Your task to perform on an android device: check android version Image 0: 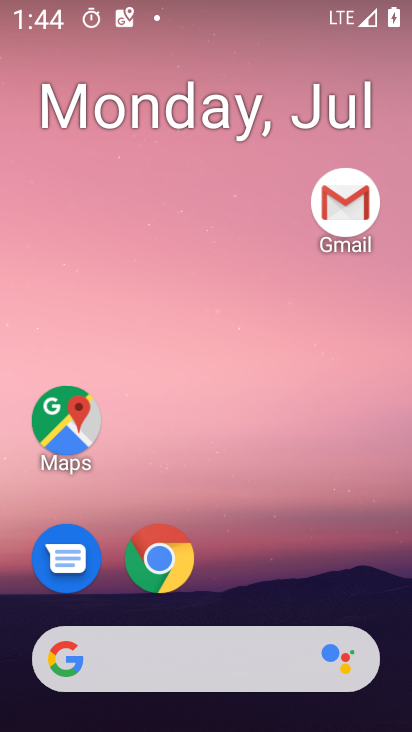
Step 0: drag from (330, 548) to (352, 95)
Your task to perform on an android device: check android version Image 1: 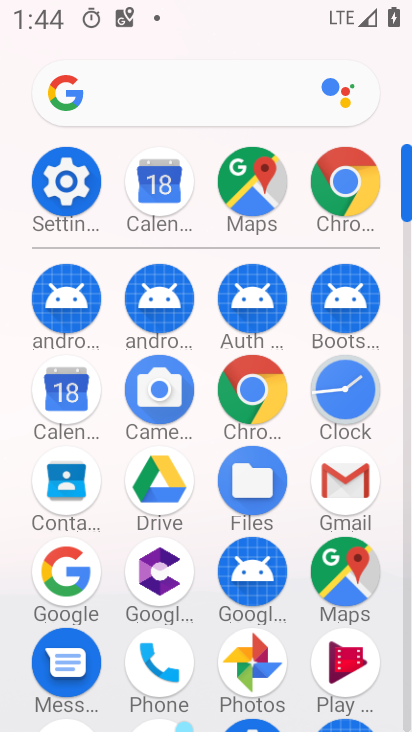
Step 1: click (75, 186)
Your task to perform on an android device: check android version Image 2: 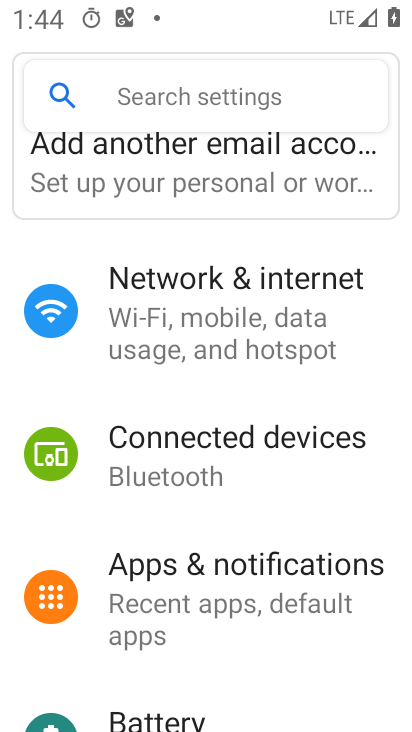
Step 2: drag from (367, 502) to (371, 426)
Your task to perform on an android device: check android version Image 3: 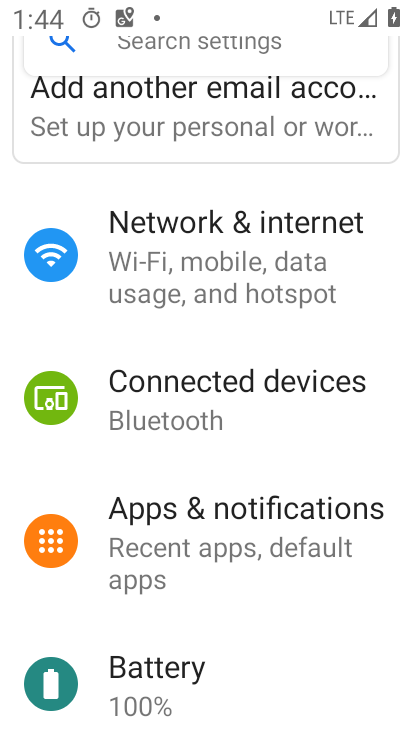
Step 3: drag from (367, 542) to (367, 455)
Your task to perform on an android device: check android version Image 4: 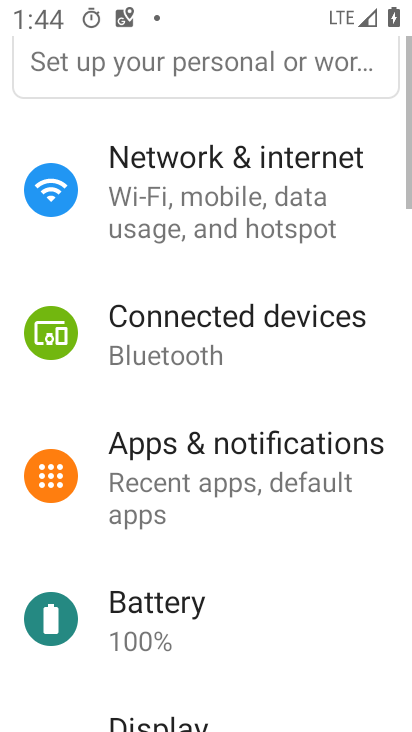
Step 4: drag from (358, 547) to (359, 453)
Your task to perform on an android device: check android version Image 5: 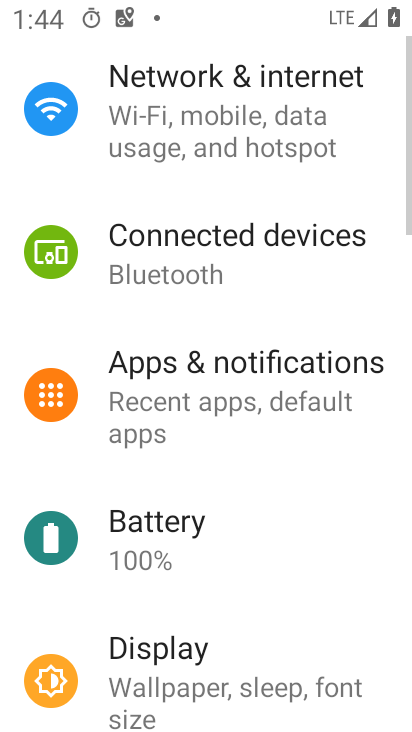
Step 5: drag from (338, 537) to (341, 447)
Your task to perform on an android device: check android version Image 6: 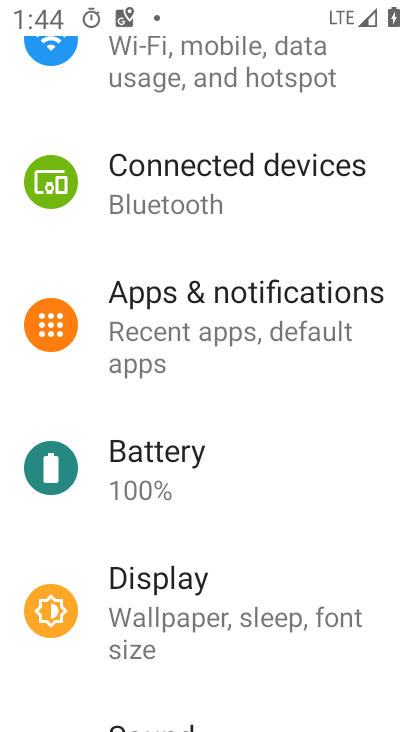
Step 6: drag from (328, 522) to (328, 426)
Your task to perform on an android device: check android version Image 7: 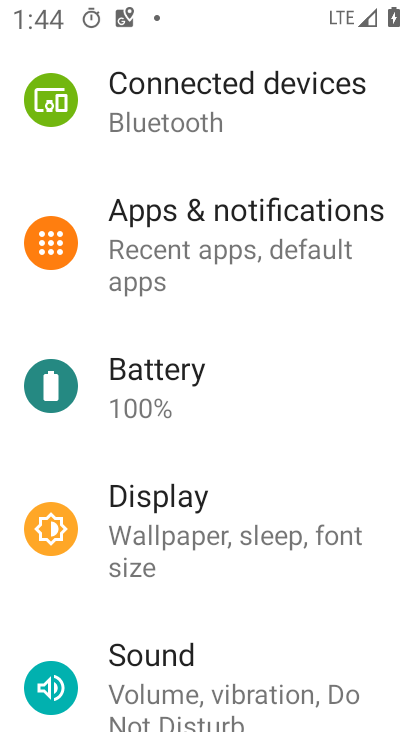
Step 7: drag from (325, 571) to (325, 492)
Your task to perform on an android device: check android version Image 8: 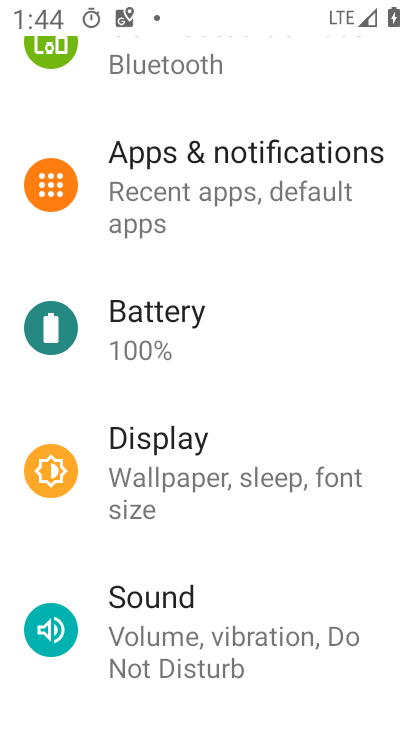
Step 8: drag from (323, 588) to (327, 488)
Your task to perform on an android device: check android version Image 9: 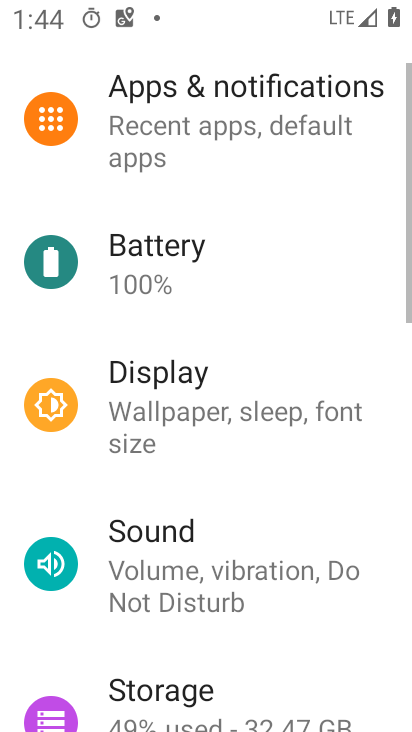
Step 9: drag from (328, 616) to (327, 439)
Your task to perform on an android device: check android version Image 10: 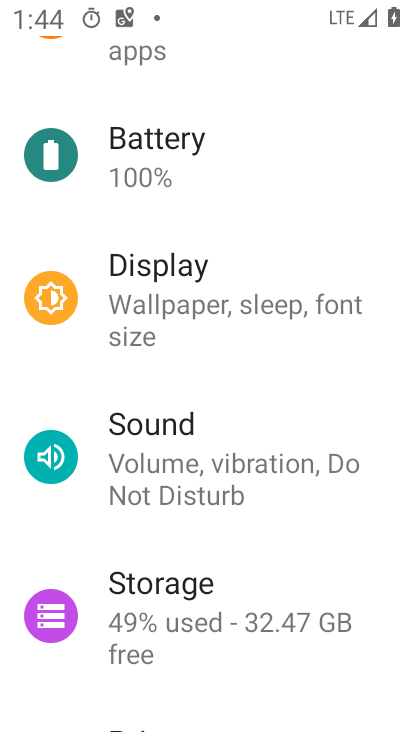
Step 10: drag from (340, 553) to (349, 454)
Your task to perform on an android device: check android version Image 11: 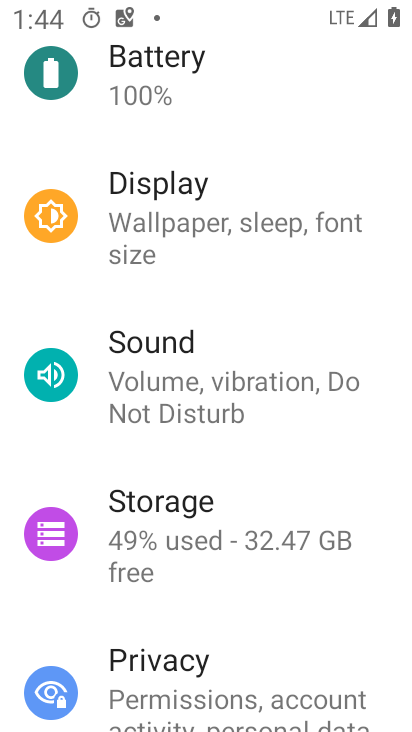
Step 11: drag from (345, 534) to (346, 491)
Your task to perform on an android device: check android version Image 12: 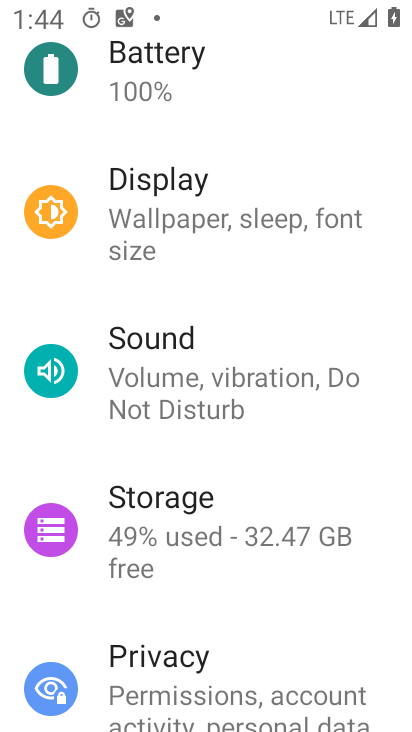
Step 12: drag from (334, 591) to (339, 449)
Your task to perform on an android device: check android version Image 13: 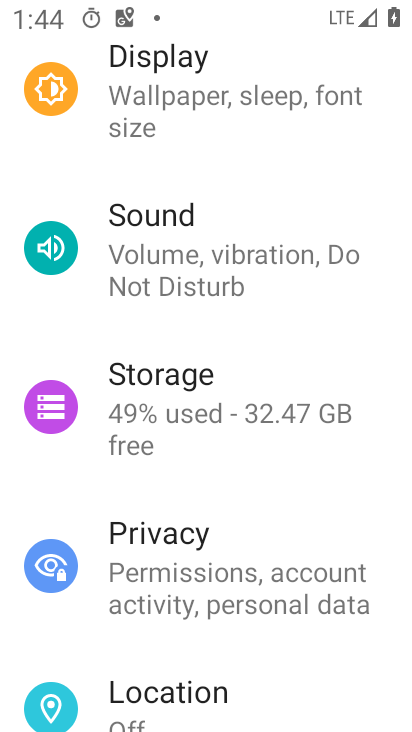
Step 13: drag from (354, 652) to (362, 478)
Your task to perform on an android device: check android version Image 14: 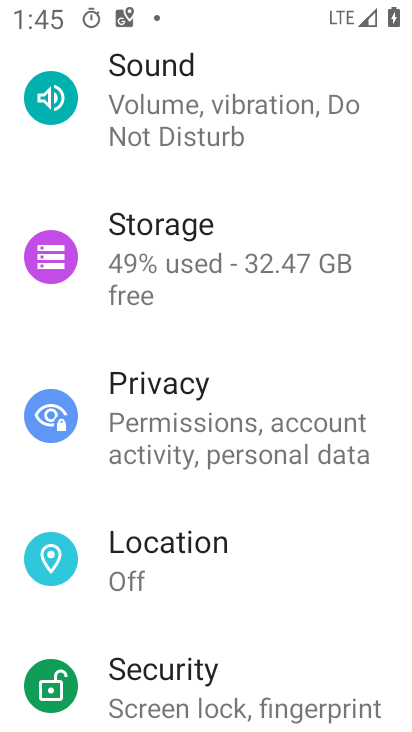
Step 14: drag from (351, 615) to (349, 424)
Your task to perform on an android device: check android version Image 15: 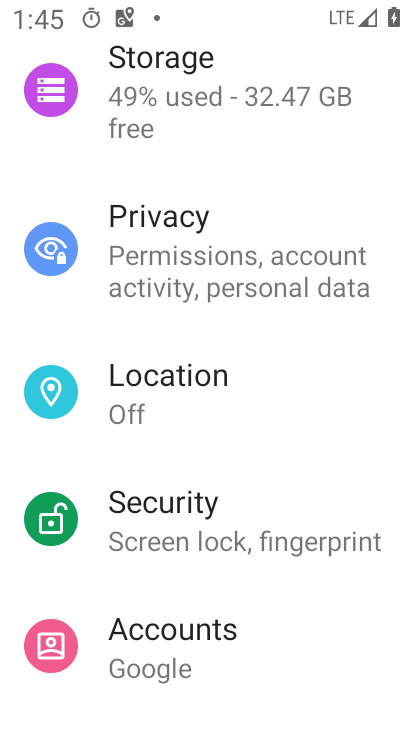
Step 15: drag from (327, 606) to (319, 486)
Your task to perform on an android device: check android version Image 16: 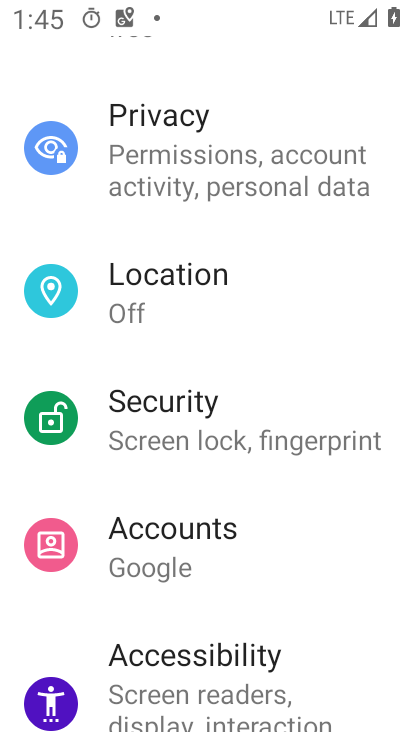
Step 16: drag from (319, 615) to (318, 465)
Your task to perform on an android device: check android version Image 17: 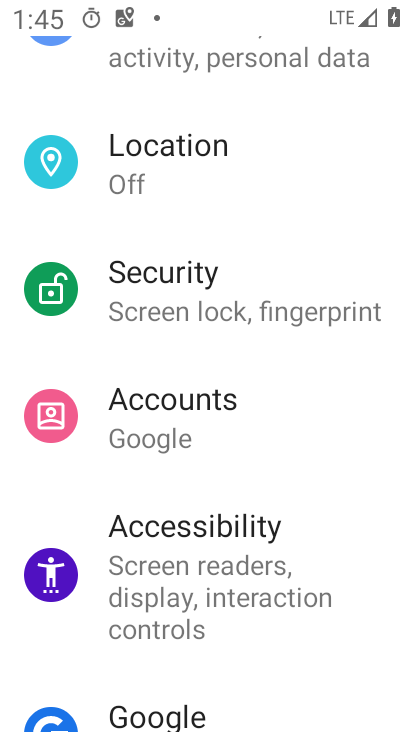
Step 17: drag from (318, 643) to (321, 508)
Your task to perform on an android device: check android version Image 18: 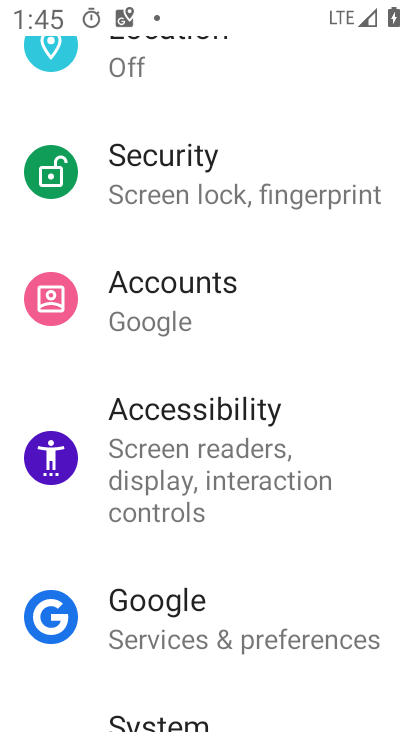
Step 18: drag from (314, 653) to (325, 508)
Your task to perform on an android device: check android version Image 19: 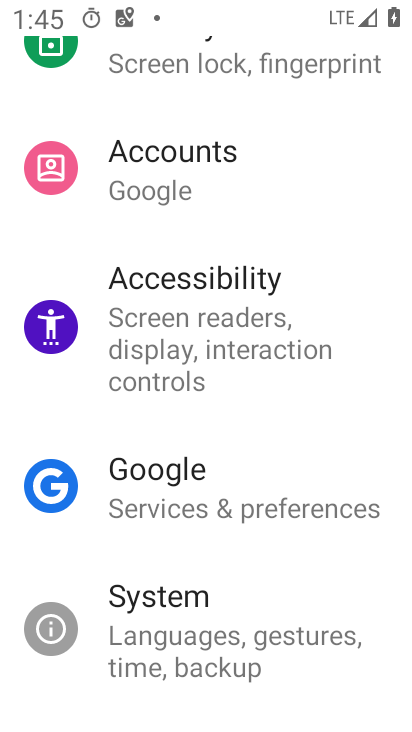
Step 19: click (296, 637)
Your task to perform on an android device: check android version Image 20: 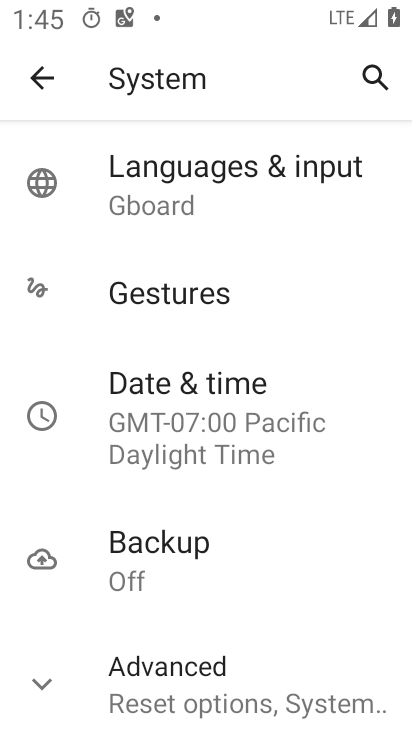
Step 20: click (302, 719)
Your task to perform on an android device: check android version Image 21: 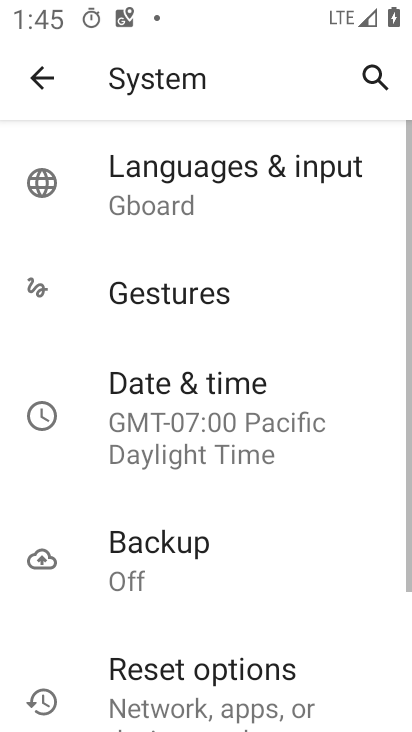
Step 21: drag from (305, 644) to (328, 523)
Your task to perform on an android device: check android version Image 22: 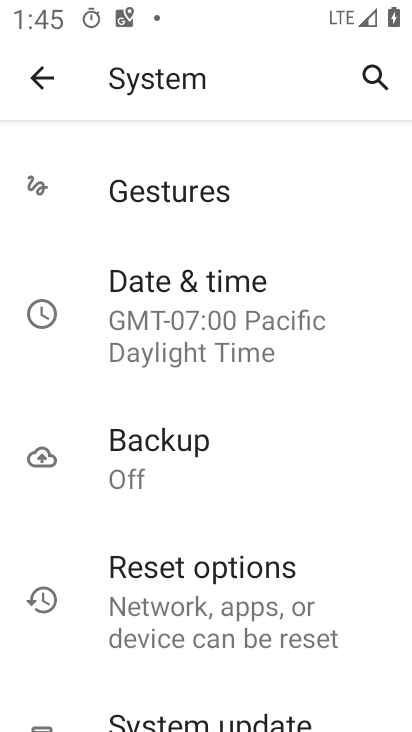
Step 22: drag from (321, 665) to (323, 484)
Your task to perform on an android device: check android version Image 23: 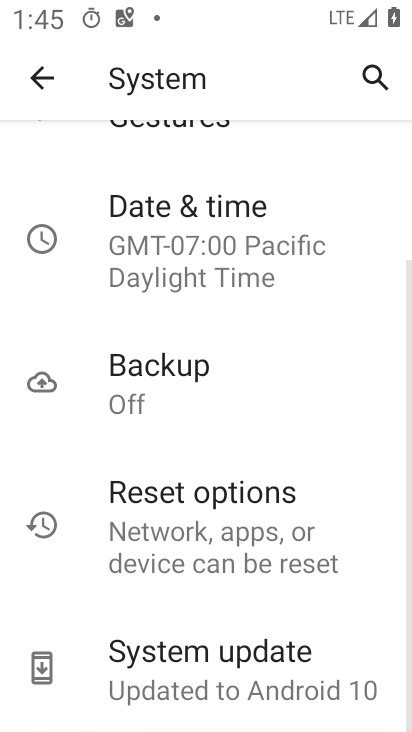
Step 23: click (305, 665)
Your task to perform on an android device: check android version Image 24: 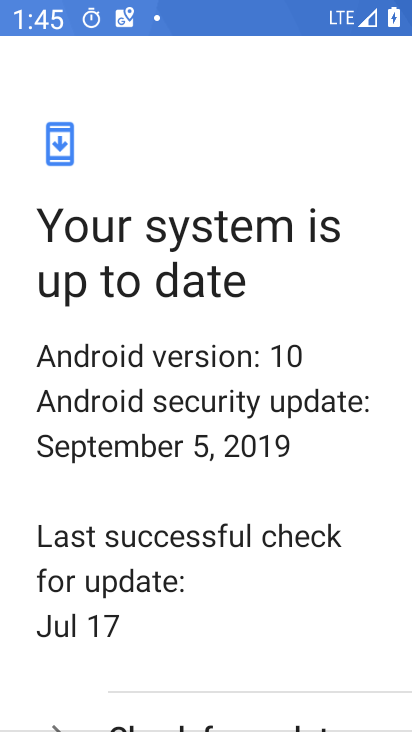
Step 24: task complete